Your task to perform on an android device: When is my next appointment? Image 0: 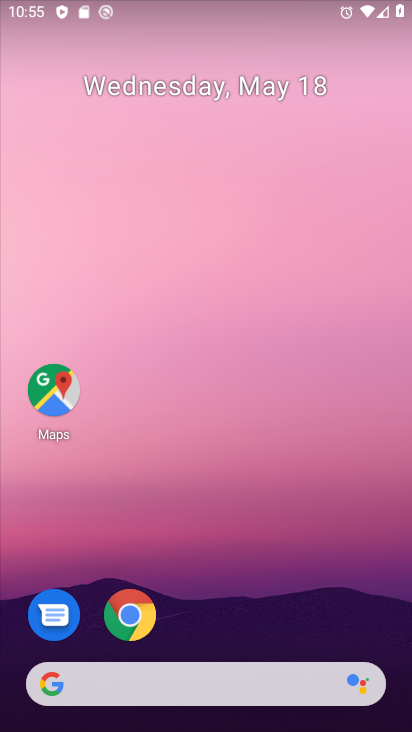
Step 0: press home button
Your task to perform on an android device: When is my next appointment? Image 1: 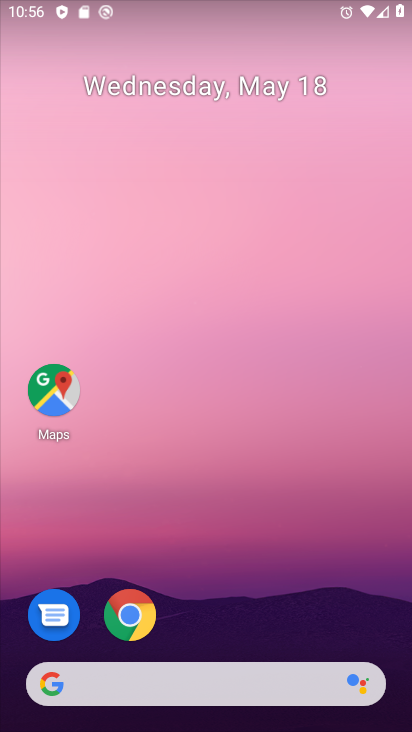
Step 1: drag from (169, 670) to (178, 234)
Your task to perform on an android device: When is my next appointment? Image 2: 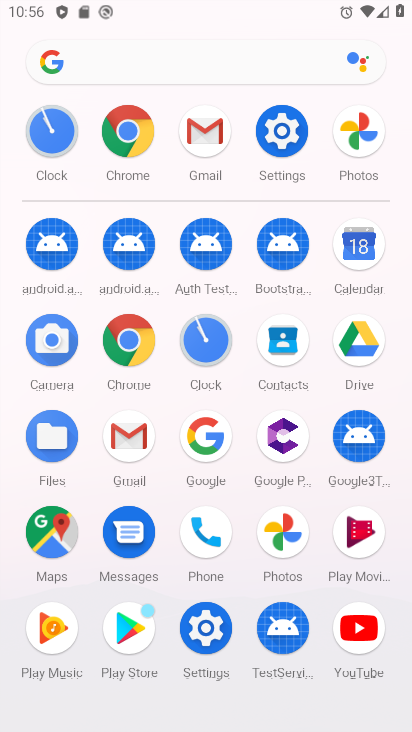
Step 2: click (355, 266)
Your task to perform on an android device: When is my next appointment? Image 3: 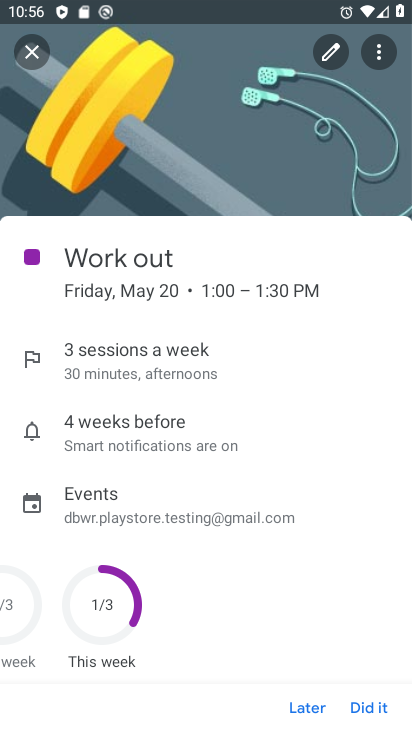
Step 3: task complete